Your task to perform on an android device: check the backup settings in the google photos Image 0: 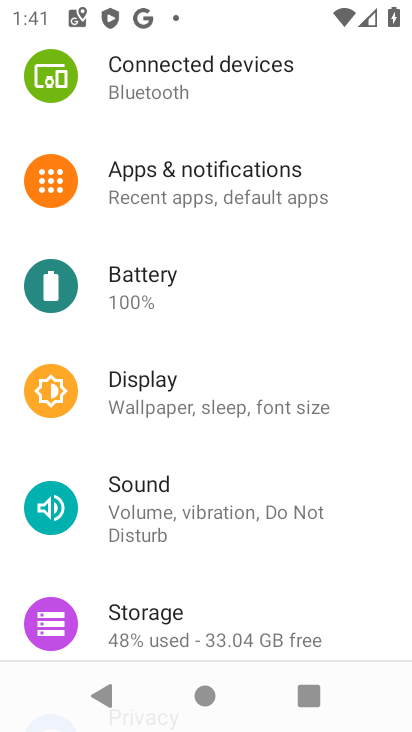
Step 0: press home button
Your task to perform on an android device: check the backup settings in the google photos Image 1: 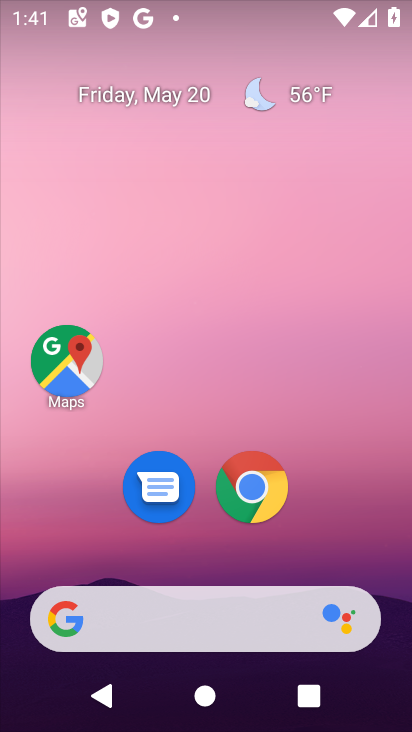
Step 1: drag from (213, 560) to (244, 74)
Your task to perform on an android device: check the backup settings in the google photos Image 2: 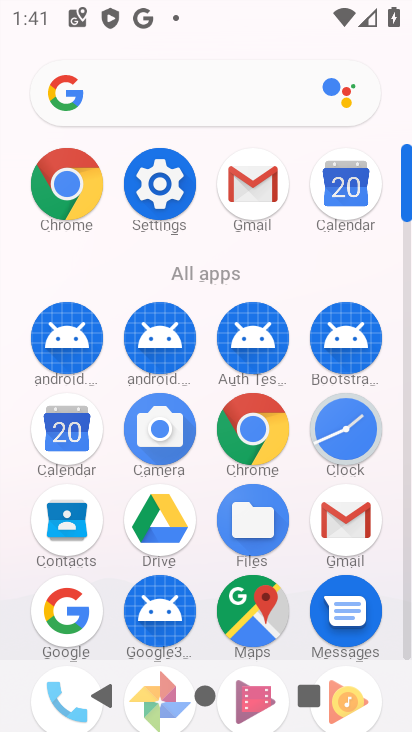
Step 2: drag from (202, 569) to (253, 113)
Your task to perform on an android device: check the backup settings in the google photos Image 3: 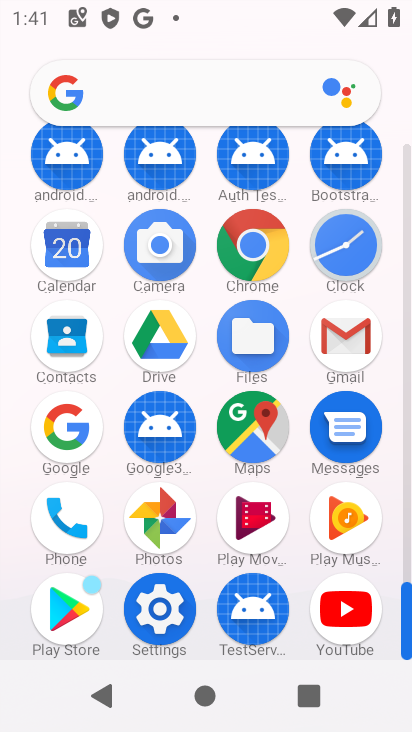
Step 3: click (166, 508)
Your task to perform on an android device: check the backup settings in the google photos Image 4: 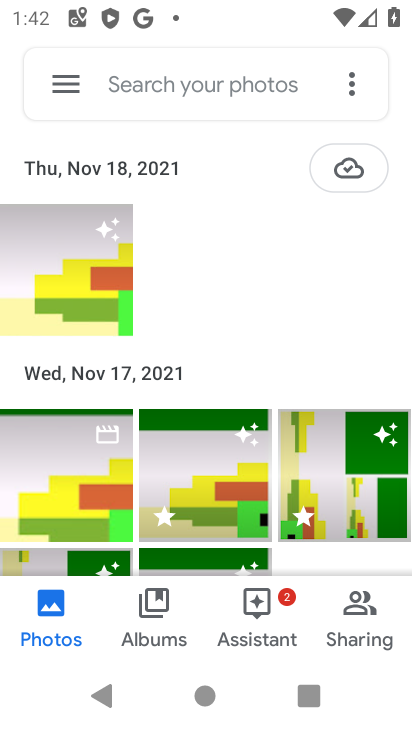
Step 4: click (64, 90)
Your task to perform on an android device: check the backup settings in the google photos Image 5: 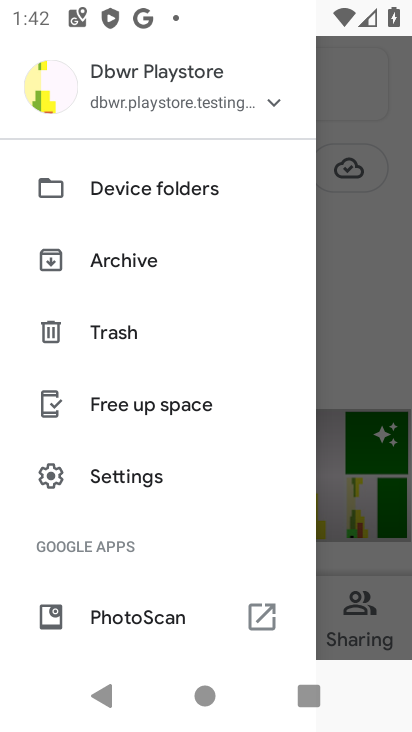
Step 5: click (154, 478)
Your task to perform on an android device: check the backup settings in the google photos Image 6: 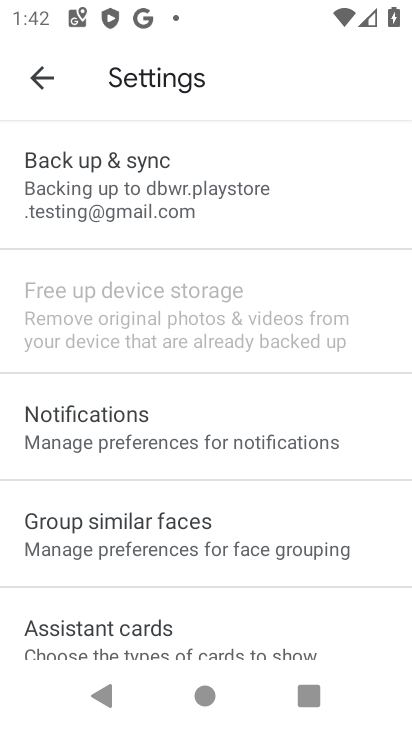
Step 6: click (126, 186)
Your task to perform on an android device: check the backup settings in the google photos Image 7: 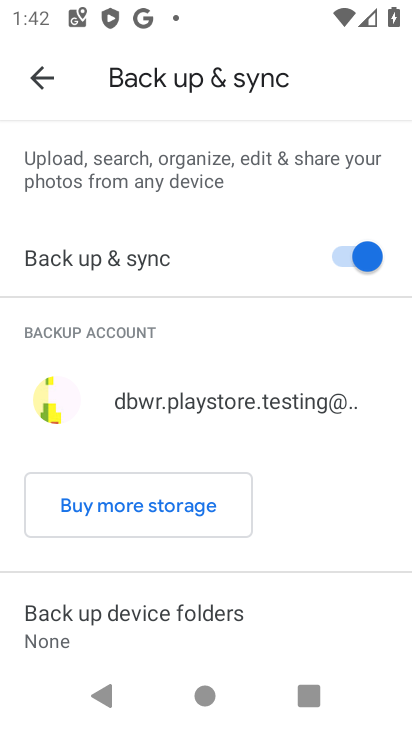
Step 7: task complete